Your task to perform on an android device: Open sound settings Image 0: 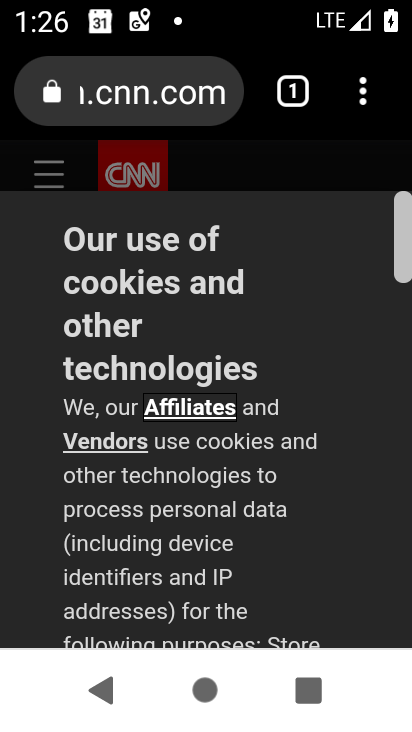
Step 0: press home button
Your task to perform on an android device: Open sound settings Image 1: 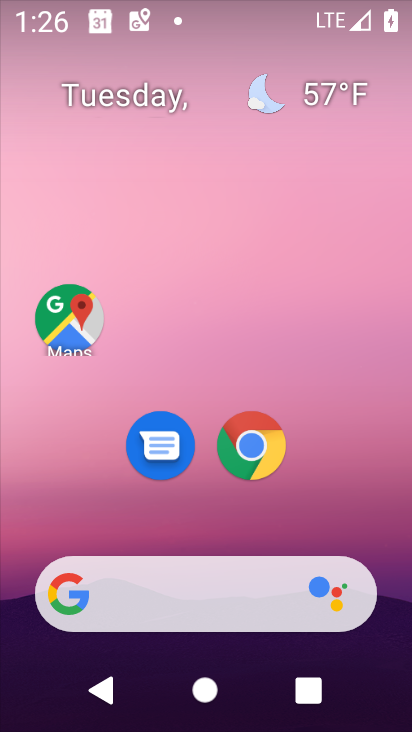
Step 1: drag from (369, 522) to (351, 174)
Your task to perform on an android device: Open sound settings Image 2: 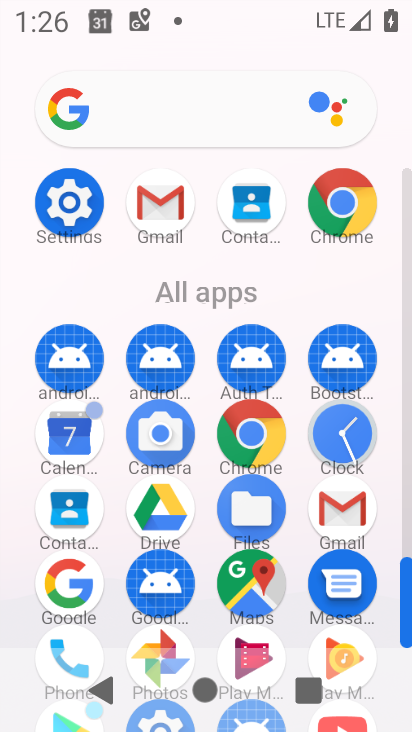
Step 2: click (81, 212)
Your task to perform on an android device: Open sound settings Image 3: 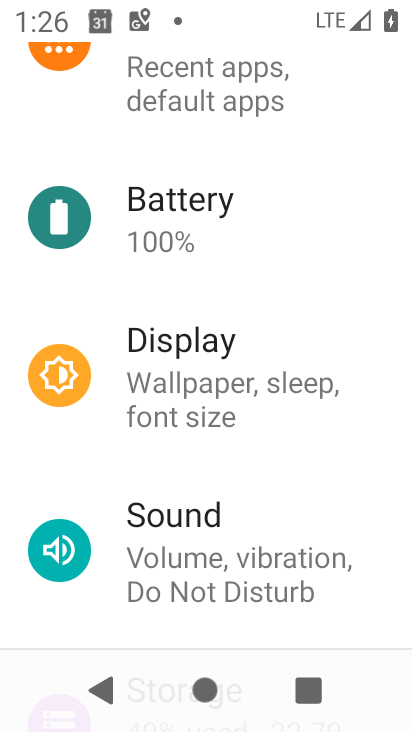
Step 3: drag from (311, 455) to (308, 337)
Your task to perform on an android device: Open sound settings Image 4: 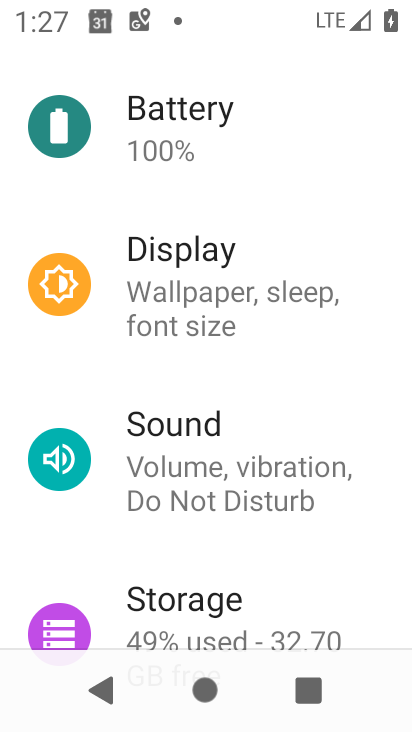
Step 4: drag from (355, 532) to (357, 376)
Your task to perform on an android device: Open sound settings Image 5: 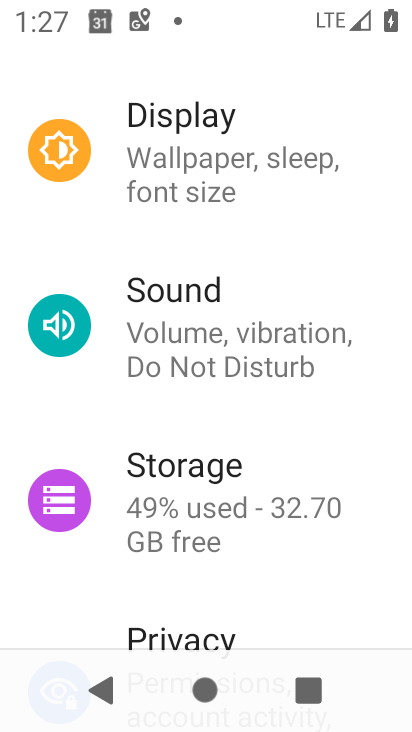
Step 5: click (257, 328)
Your task to perform on an android device: Open sound settings Image 6: 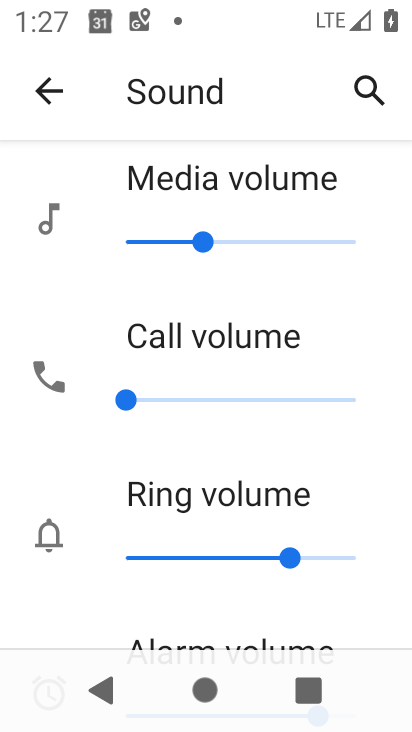
Step 6: task complete